Your task to perform on an android device: open wifi settings Image 0: 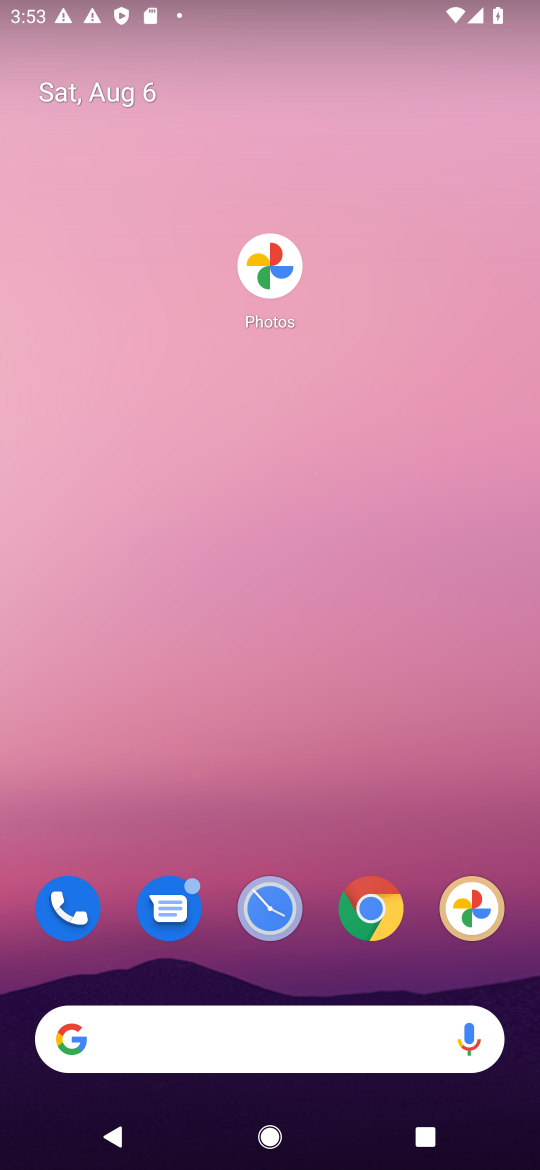
Step 0: drag from (272, 971) to (382, 19)
Your task to perform on an android device: open wifi settings Image 1: 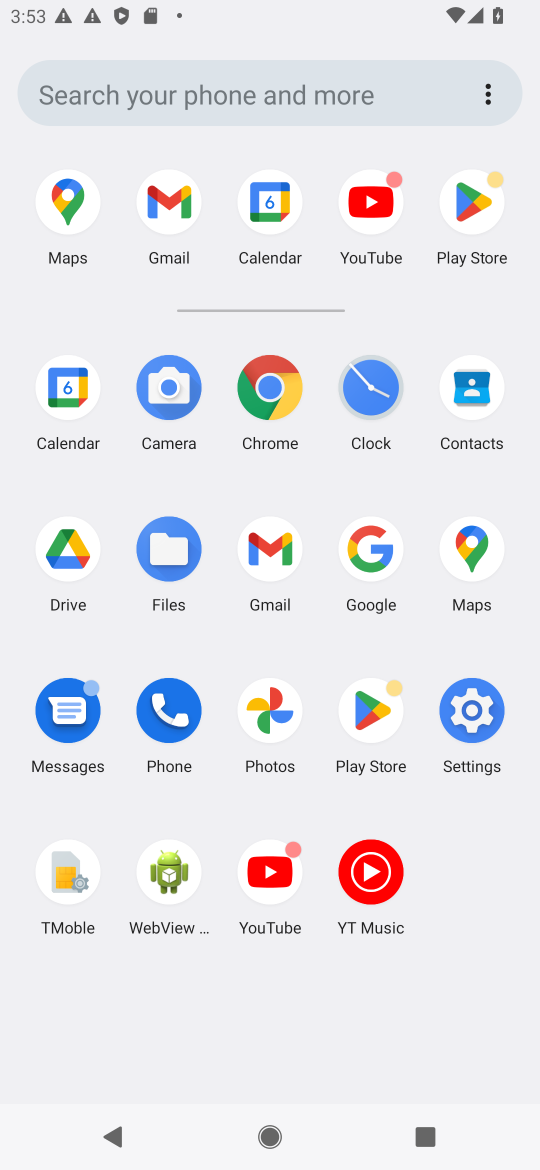
Step 1: click (476, 715)
Your task to perform on an android device: open wifi settings Image 2: 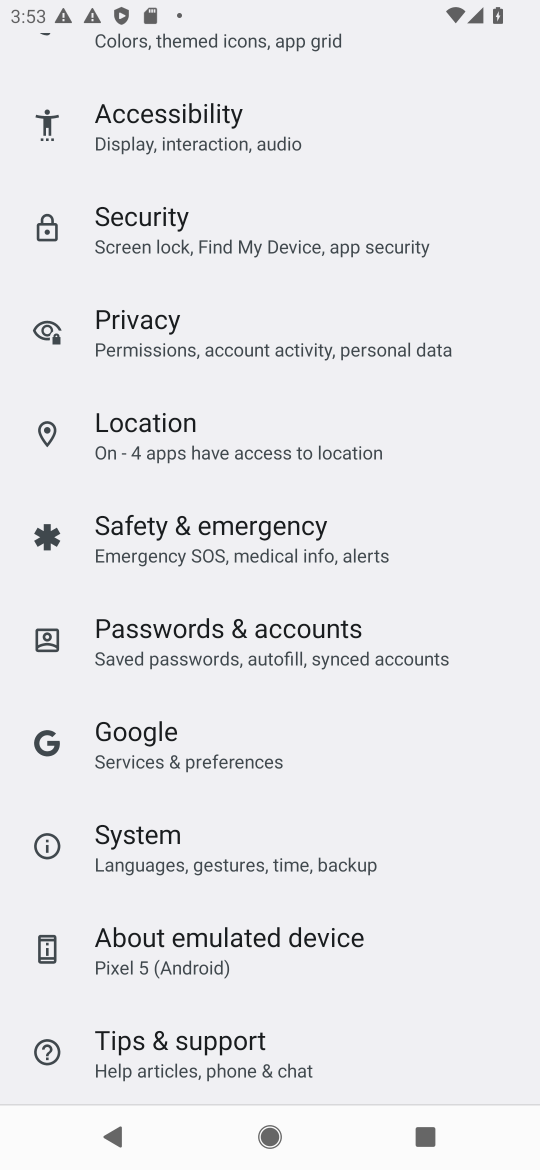
Step 2: drag from (232, 163) to (145, 1129)
Your task to perform on an android device: open wifi settings Image 3: 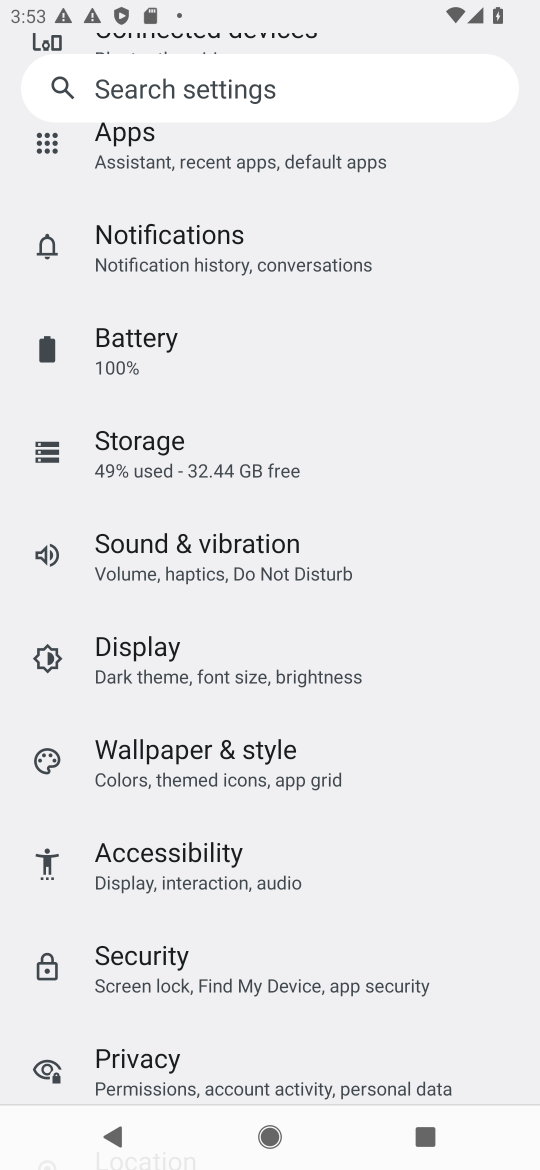
Step 3: drag from (262, 639) to (147, 1147)
Your task to perform on an android device: open wifi settings Image 4: 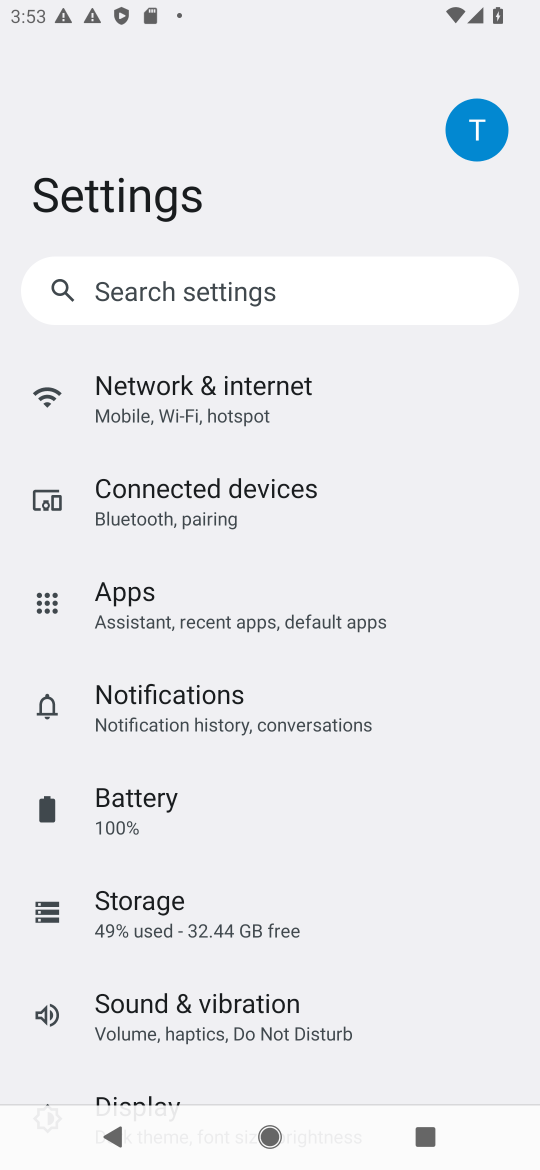
Step 4: click (154, 415)
Your task to perform on an android device: open wifi settings Image 5: 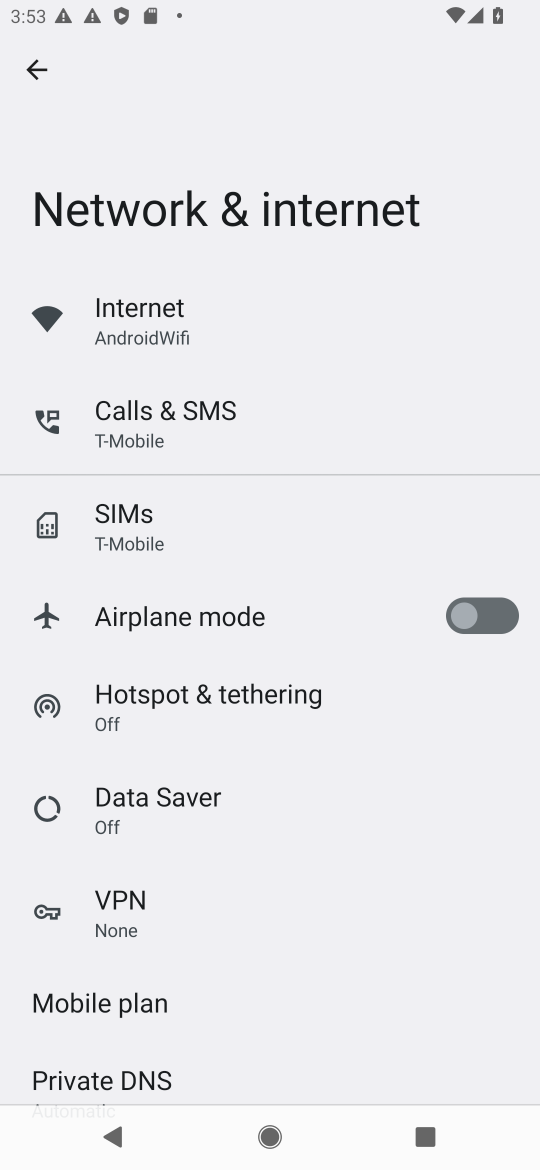
Step 5: click (157, 326)
Your task to perform on an android device: open wifi settings Image 6: 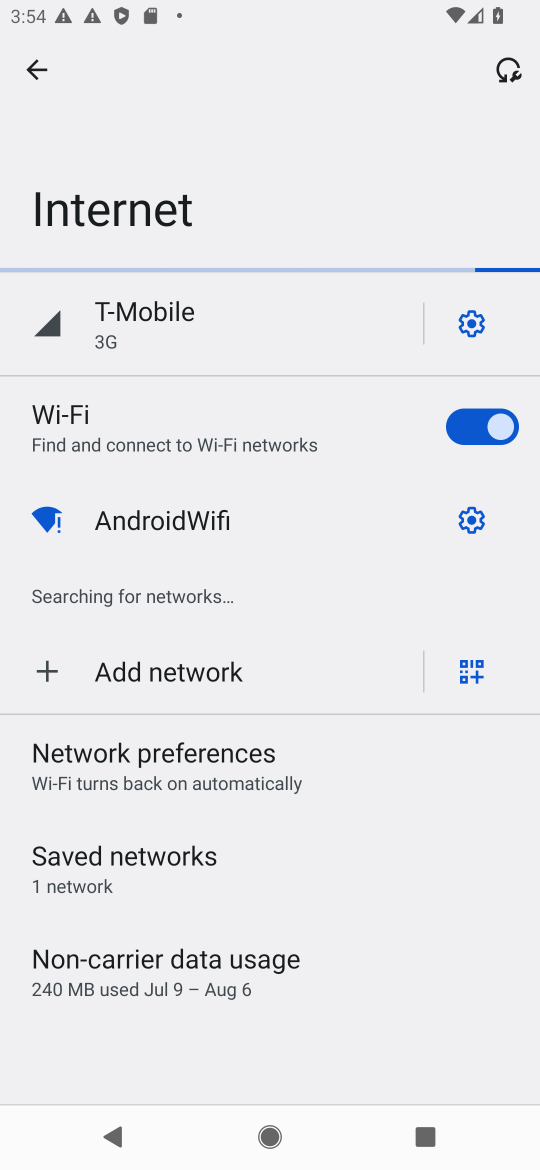
Step 6: task complete